Your task to perform on an android device: turn on notifications settings in the gmail app Image 0: 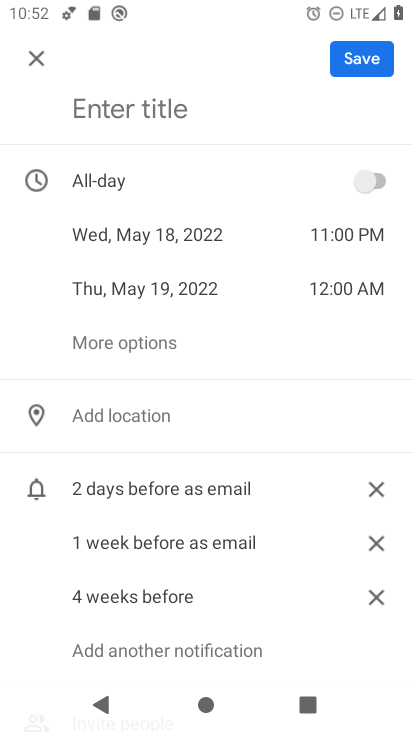
Step 0: press home button
Your task to perform on an android device: turn on notifications settings in the gmail app Image 1: 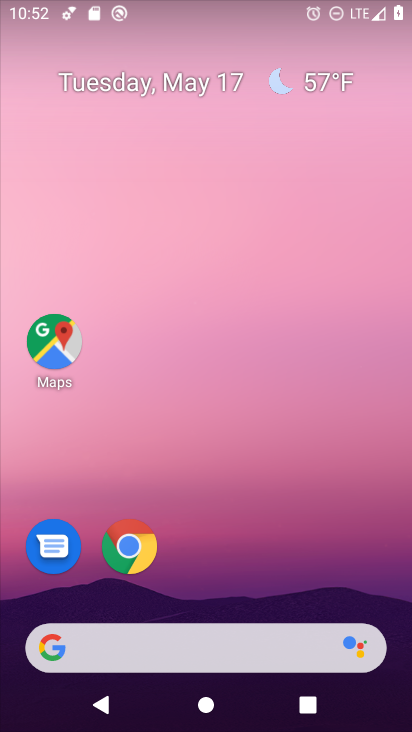
Step 1: drag from (311, 616) to (319, 2)
Your task to perform on an android device: turn on notifications settings in the gmail app Image 2: 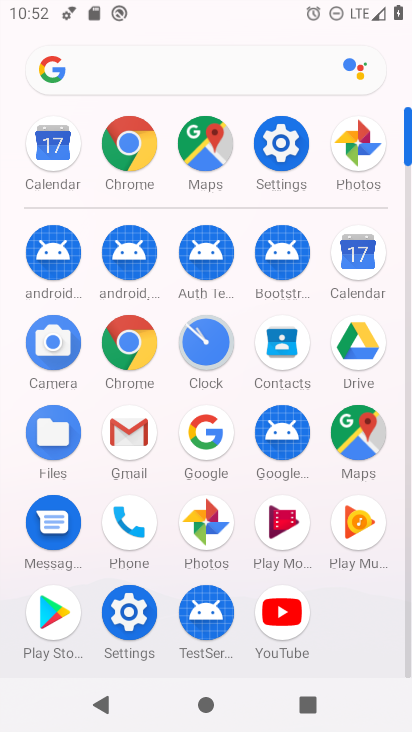
Step 2: click (128, 429)
Your task to perform on an android device: turn on notifications settings in the gmail app Image 3: 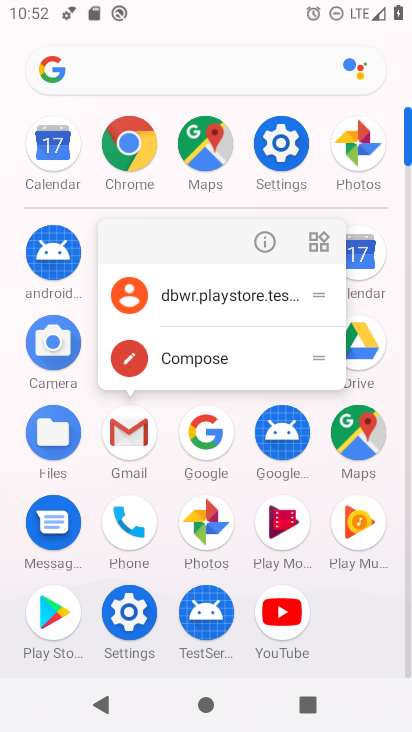
Step 3: click (128, 429)
Your task to perform on an android device: turn on notifications settings in the gmail app Image 4: 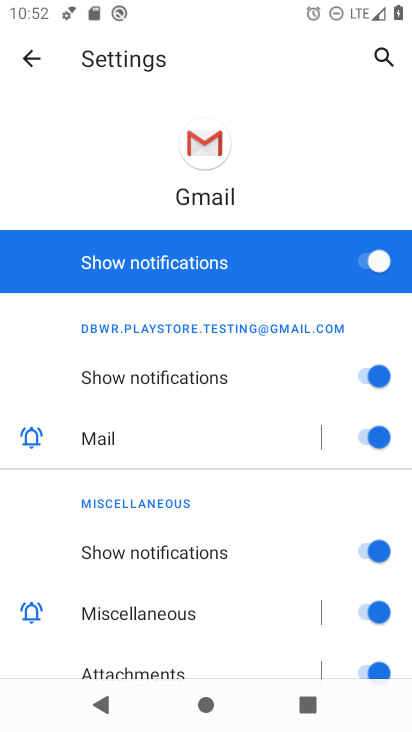
Step 4: task complete